Your task to perform on an android device: Open network settings Image 0: 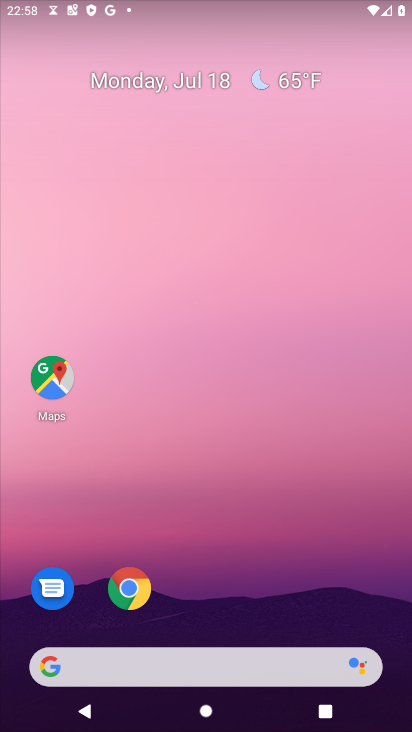
Step 0: drag from (227, 663) to (291, 204)
Your task to perform on an android device: Open network settings Image 1: 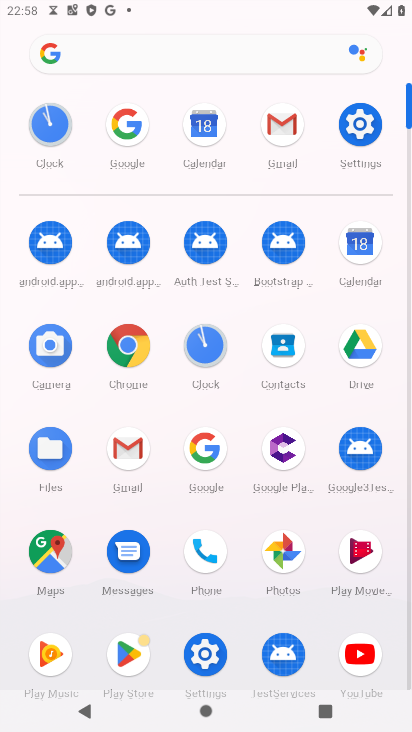
Step 1: click (361, 123)
Your task to perform on an android device: Open network settings Image 2: 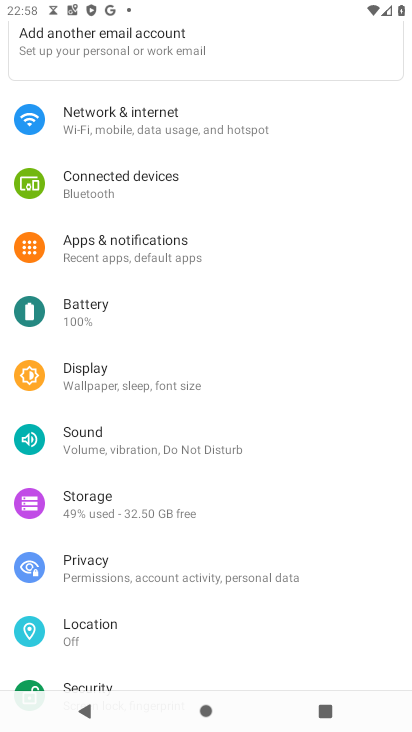
Step 2: click (150, 120)
Your task to perform on an android device: Open network settings Image 3: 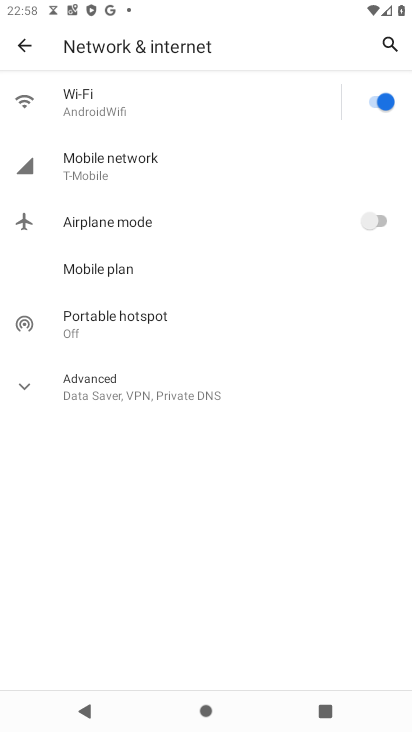
Step 3: task complete